Your task to perform on an android device: check android version Image 0: 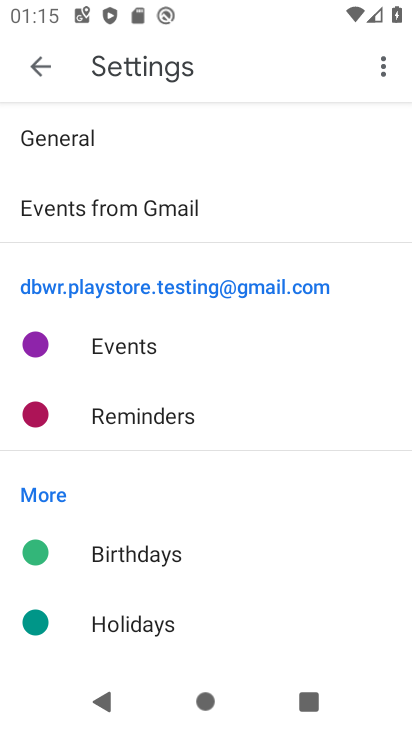
Step 0: press home button
Your task to perform on an android device: check android version Image 1: 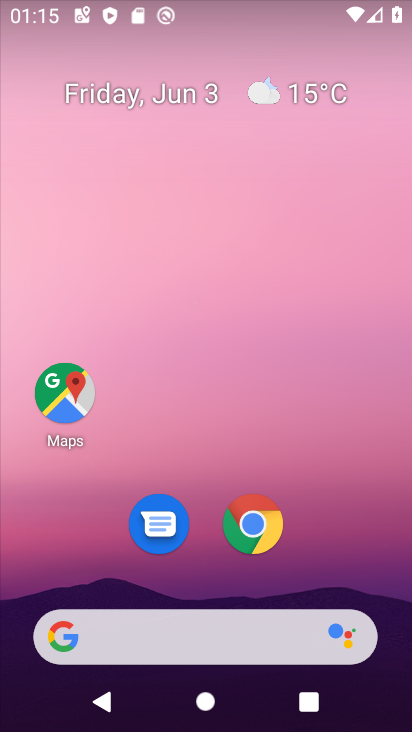
Step 1: drag from (313, 564) to (354, 56)
Your task to perform on an android device: check android version Image 2: 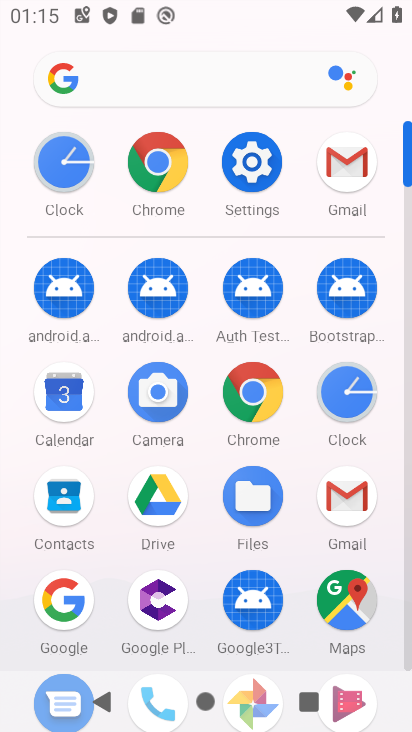
Step 2: click (269, 165)
Your task to perform on an android device: check android version Image 3: 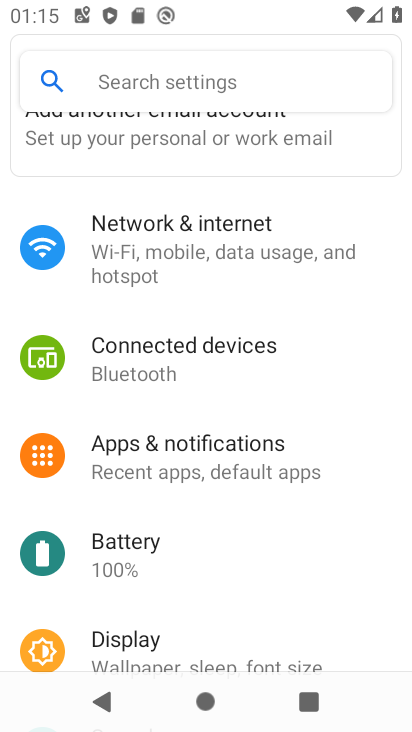
Step 3: drag from (270, 595) to (266, 111)
Your task to perform on an android device: check android version Image 4: 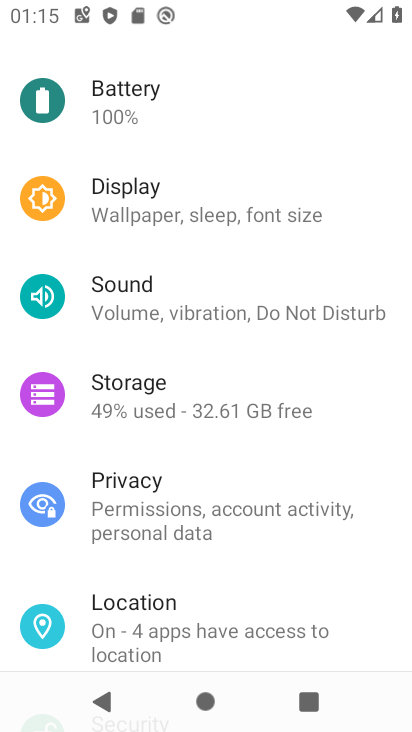
Step 4: drag from (276, 576) to (273, 118)
Your task to perform on an android device: check android version Image 5: 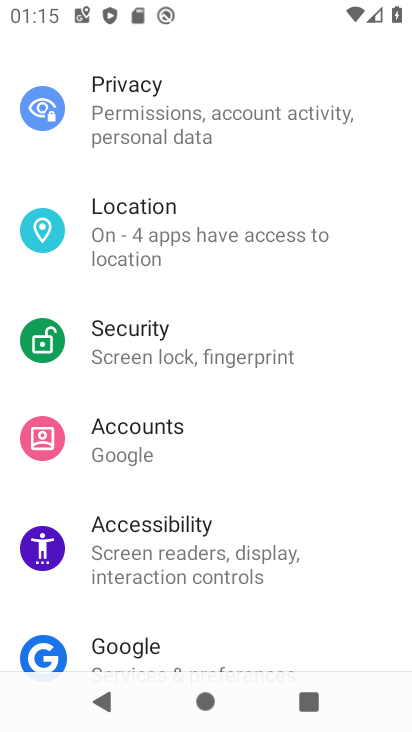
Step 5: drag from (267, 484) to (264, 148)
Your task to perform on an android device: check android version Image 6: 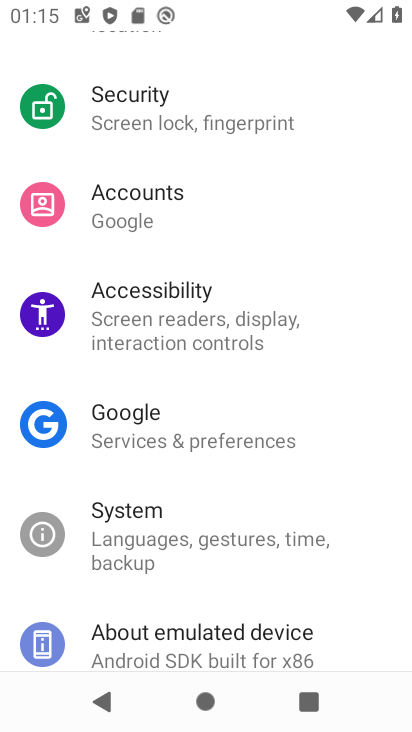
Step 6: click (241, 638)
Your task to perform on an android device: check android version Image 7: 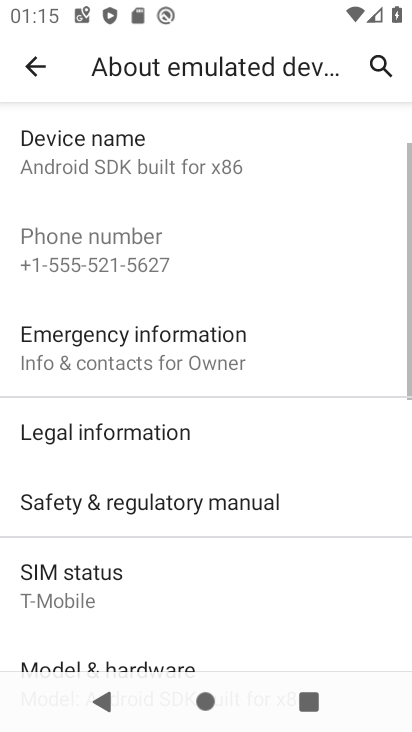
Step 7: drag from (226, 578) to (248, 137)
Your task to perform on an android device: check android version Image 8: 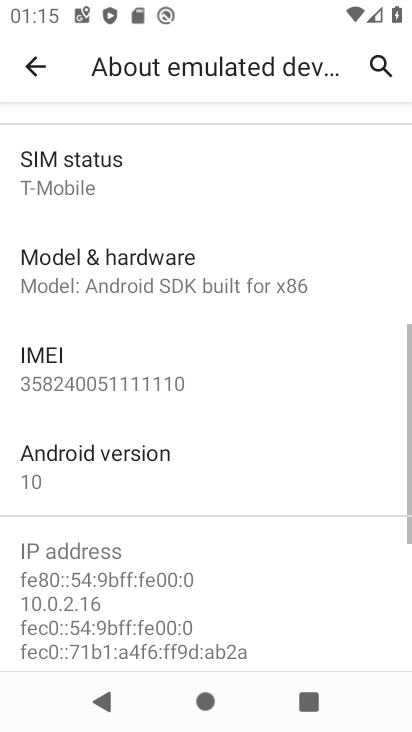
Step 8: click (215, 475)
Your task to perform on an android device: check android version Image 9: 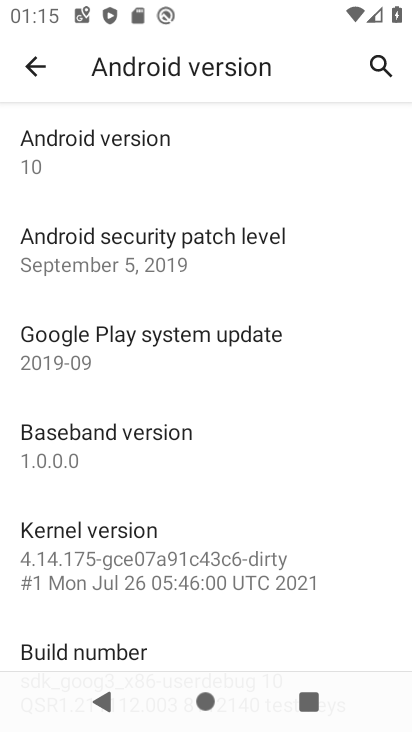
Step 9: task complete